Your task to perform on an android device: Open ESPN.com Image 0: 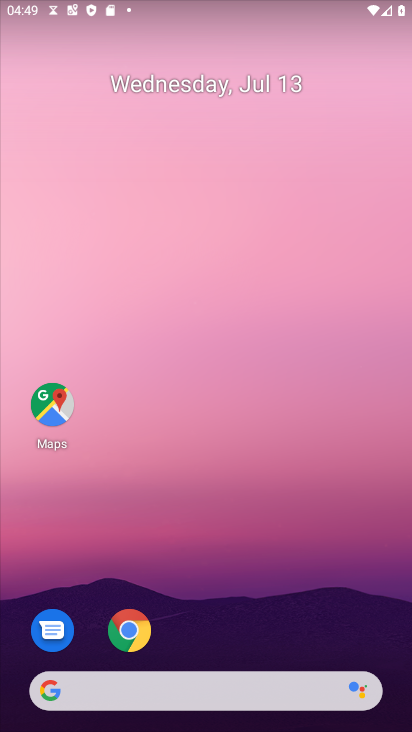
Step 0: drag from (218, 667) to (272, 13)
Your task to perform on an android device: Open ESPN.com Image 1: 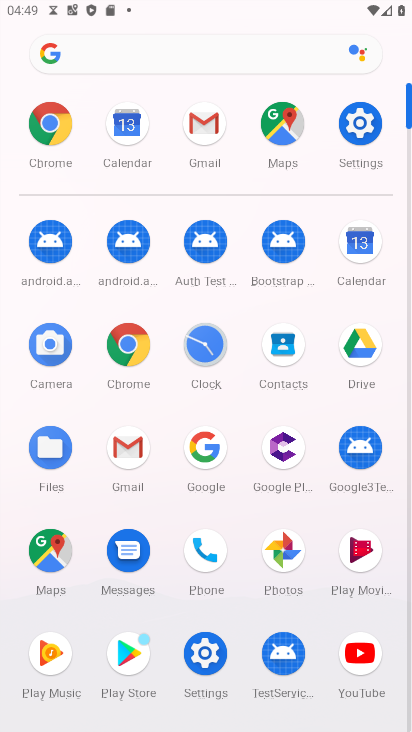
Step 1: click (137, 351)
Your task to perform on an android device: Open ESPN.com Image 2: 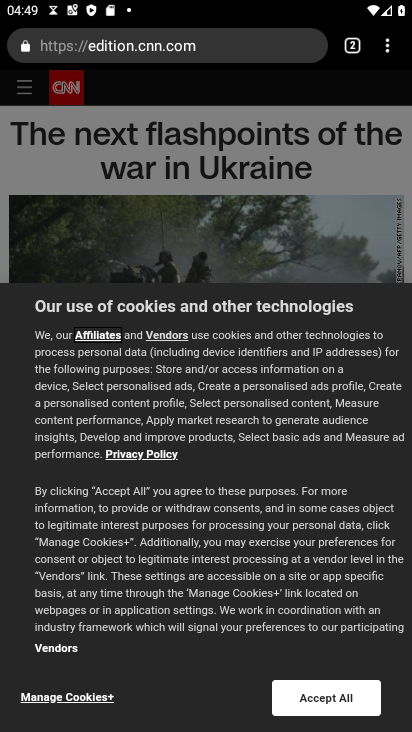
Step 2: click (230, 50)
Your task to perform on an android device: Open ESPN.com Image 3: 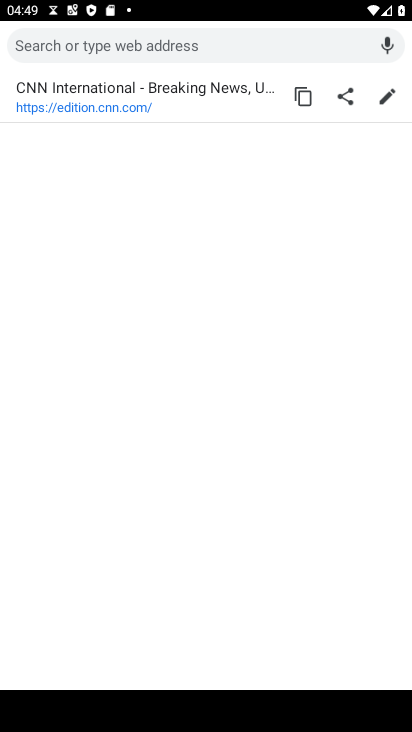
Step 3: type "espn.com"
Your task to perform on an android device: Open ESPN.com Image 4: 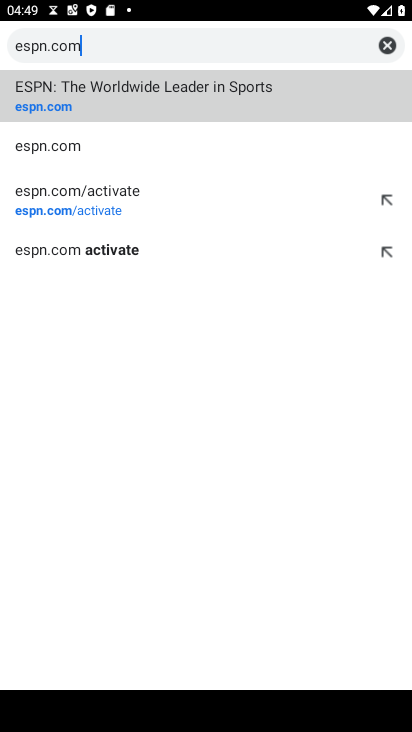
Step 4: click (149, 83)
Your task to perform on an android device: Open ESPN.com Image 5: 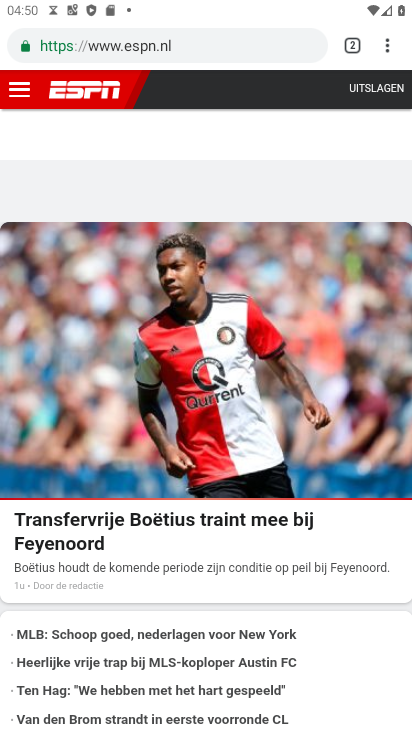
Step 5: task complete